Your task to perform on an android device: When is my next appointment? Image 0: 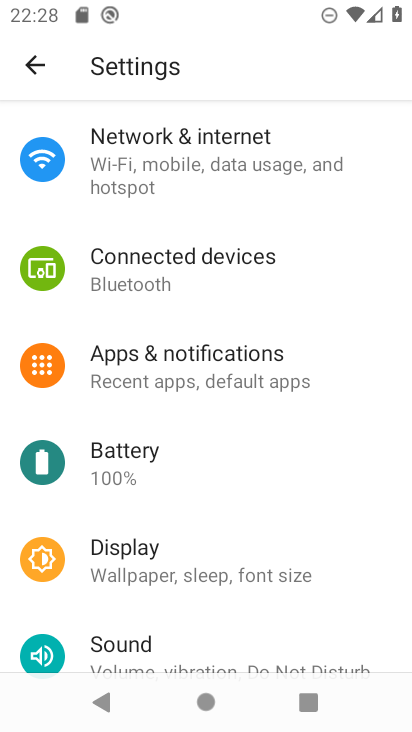
Step 0: press home button
Your task to perform on an android device: When is my next appointment? Image 1: 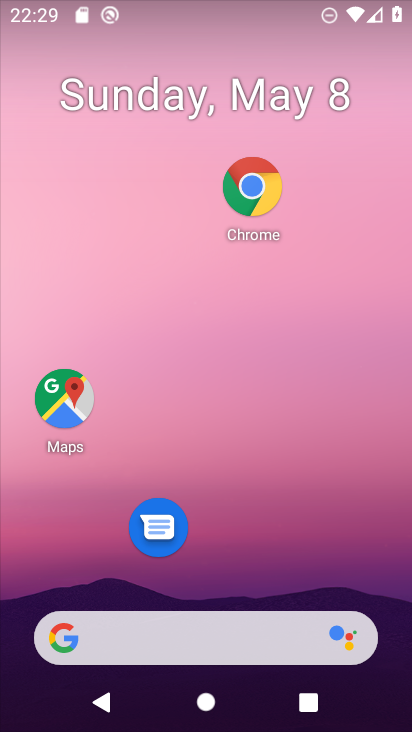
Step 1: drag from (253, 573) to (320, 261)
Your task to perform on an android device: When is my next appointment? Image 2: 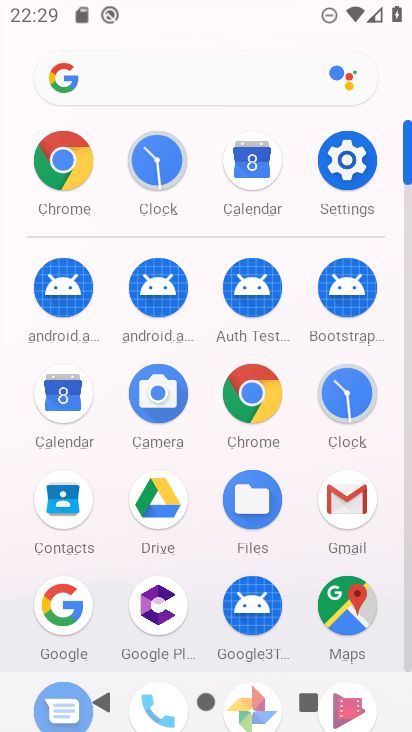
Step 2: click (60, 384)
Your task to perform on an android device: When is my next appointment? Image 3: 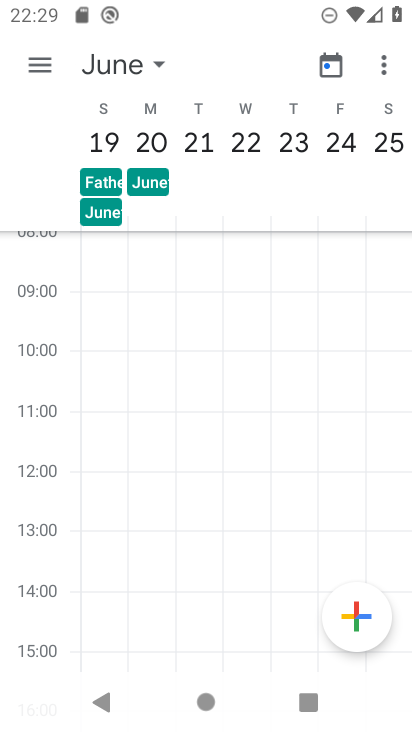
Step 3: click (36, 53)
Your task to perform on an android device: When is my next appointment? Image 4: 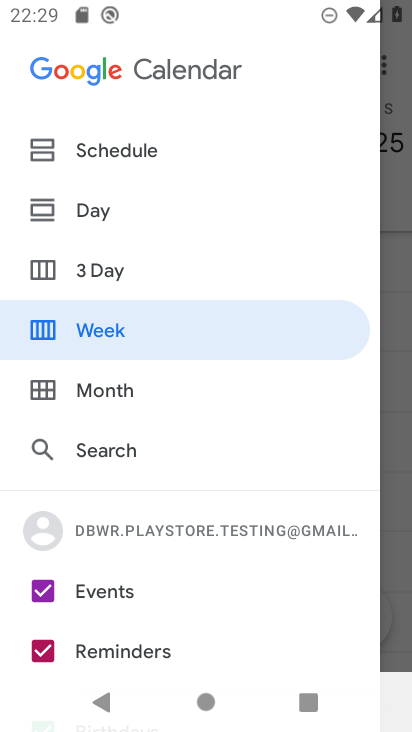
Step 4: click (101, 392)
Your task to perform on an android device: When is my next appointment? Image 5: 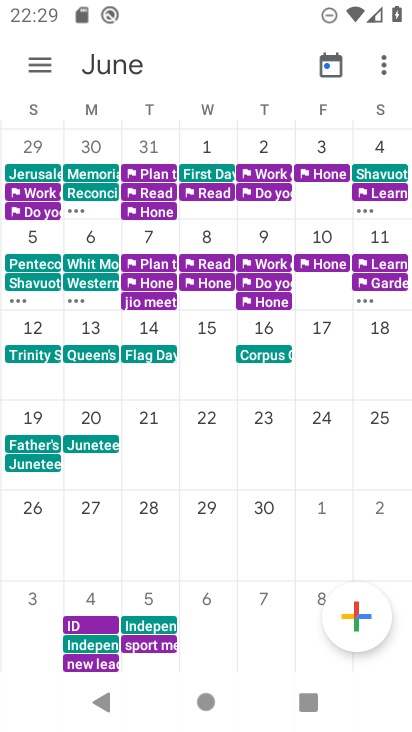
Step 5: drag from (71, 196) to (394, 226)
Your task to perform on an android device: When is my next appointment? Image 6: 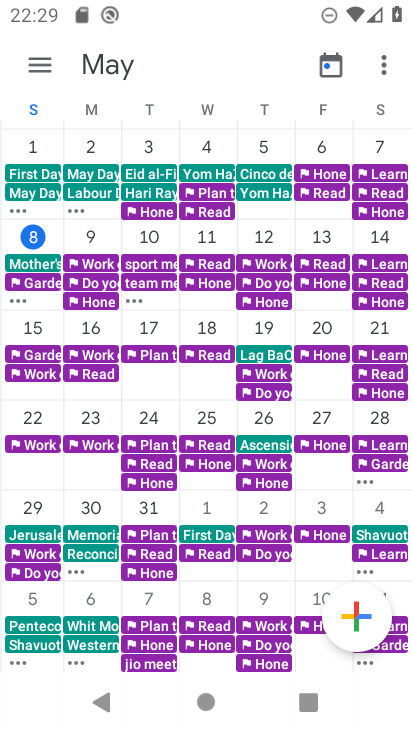
Step 6: click (80, 237)
Your task to perform on an android device: When is my next appointment? Image 7: 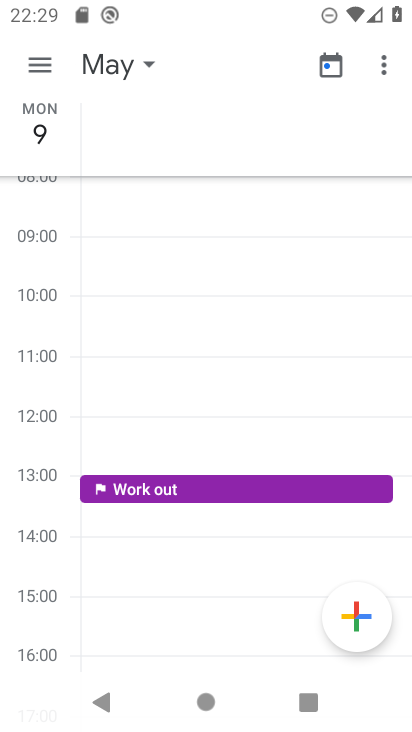
Step 7: task complete